Your task to perform on an android device: Open Chrome and go to settings Image 0: 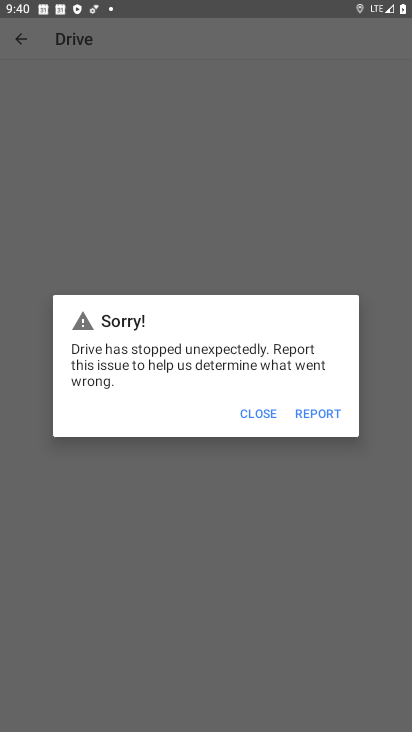
Step 0: press home button
Your task to perform on an android device: Open Chrome and go to settings Image 1: 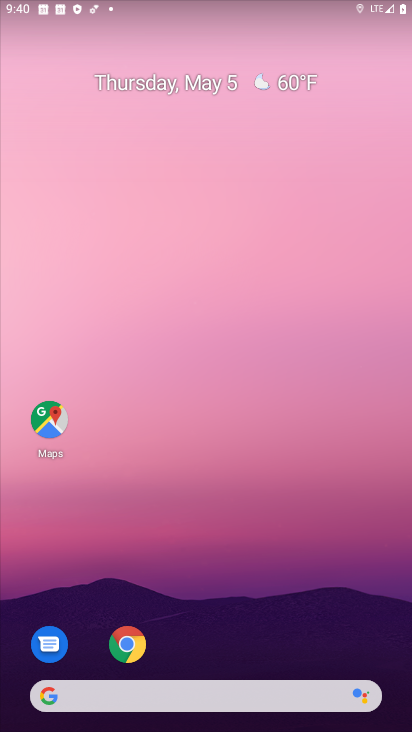
Step 1: drag from (176, 683) to (140, 155)
Your task to perform on an android device: Open Chrome and go to settings Image 2: 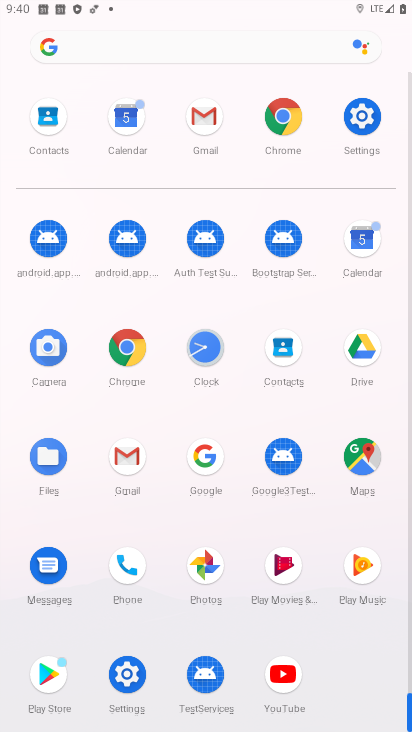
Step 2: click (360, 129)
Your task to perform on an android device: Open Chrome and go to settings Image 3: 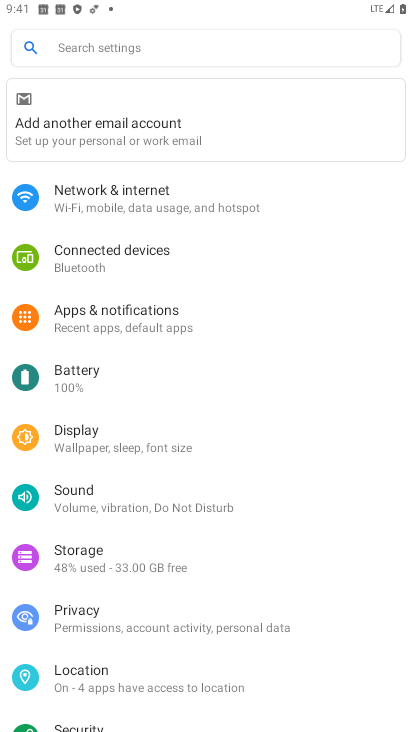
Step 3: drag from (208, 631) to (237, 235)
Your task to perform on an android device: Open Chrome and go to settings Image 4: 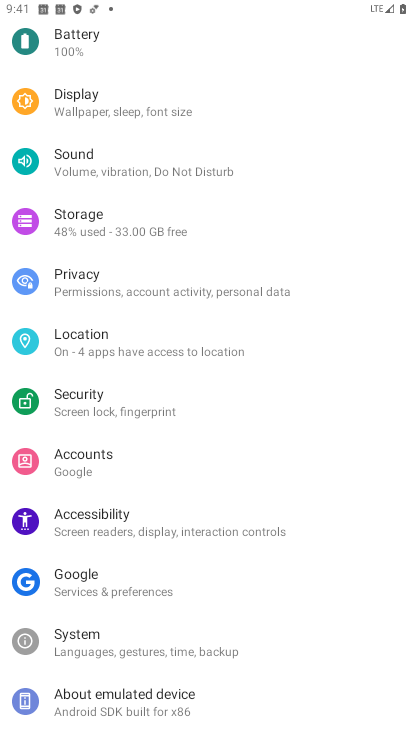
Step 4: press home button
Your task to perform on an android device: Open Chrome and go to settings Image 5: 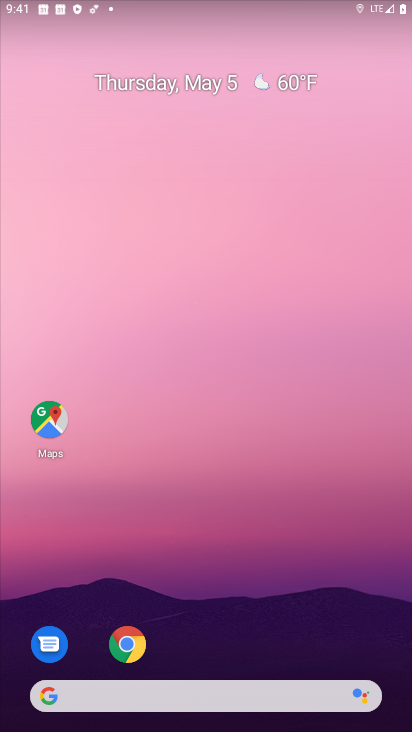
Step 5: click (127, 638)
Your task to perform on an android device: Open Chrome and go to settings Image 6: 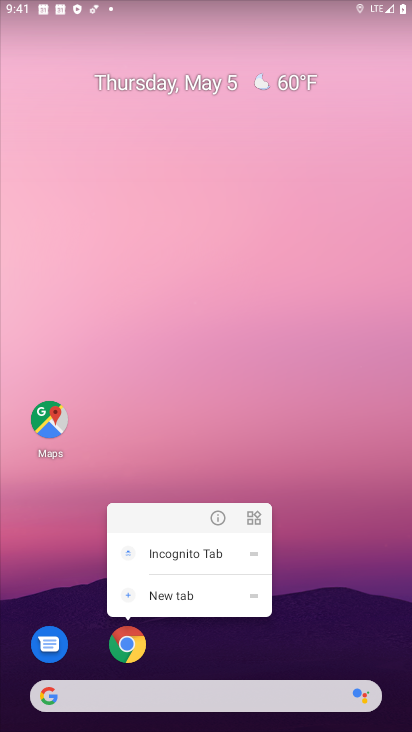
Step 6: click (220, 522)
Your task to perform on an android device: Open Chrome and go to settings Image 7: 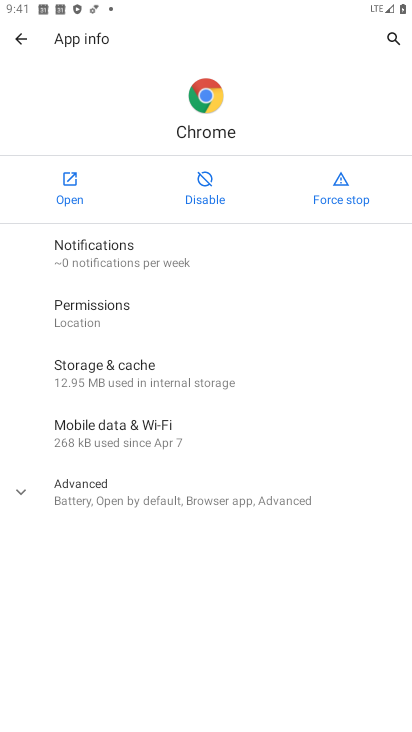
Step 7: click (63, 177)
Your task to perform on an android device: Open Chrome and go to settings Image 8: 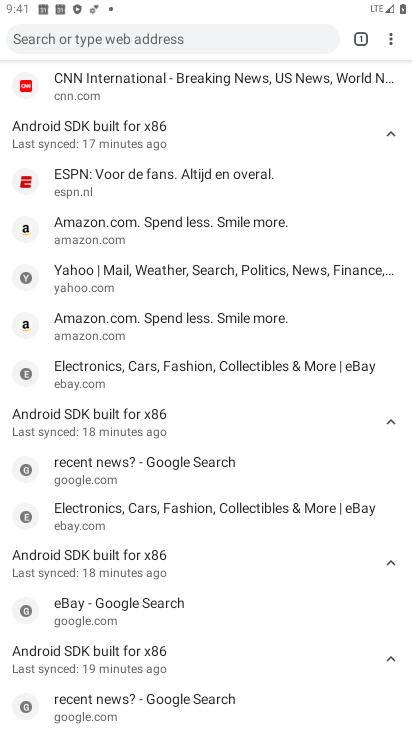
Step 8: task complete